Your task to perform on an android device: find which apps use the phone's location Image 0: 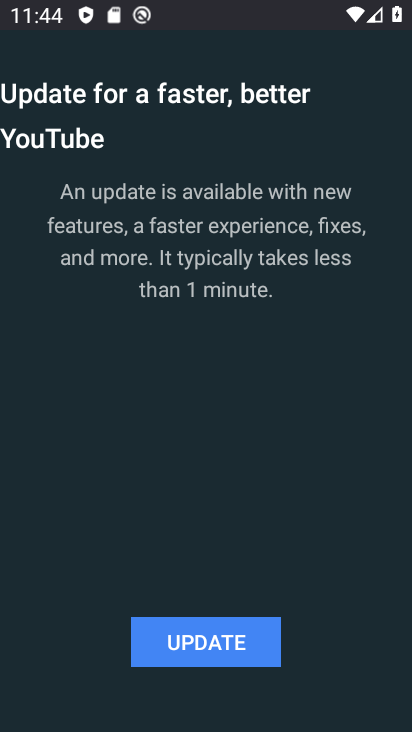
Step 0: press back button
Your task to perform on an android device: find which apps use the phone's location Image 1: 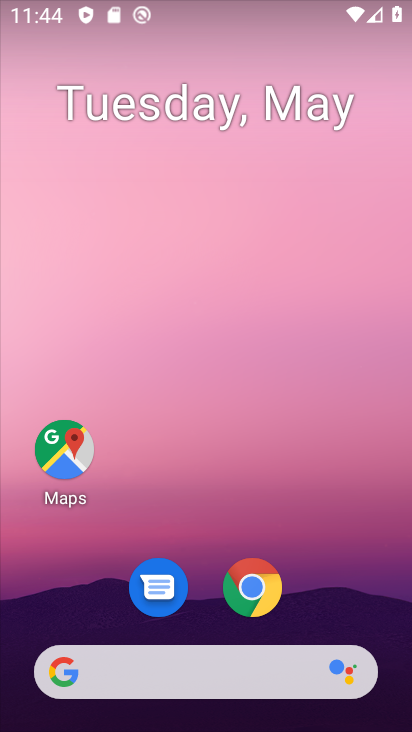
Step 1: drag from (315, 609) to (294, 14)
Your task to perform on an android device: find which apps use the phone's location Image 2: 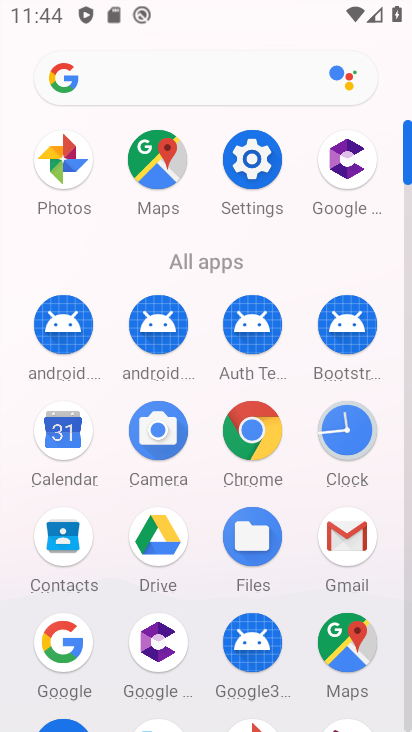
Step 2: click (253, 168)
Your task to perform on an android device: find which apps use the phone's location Image 3: 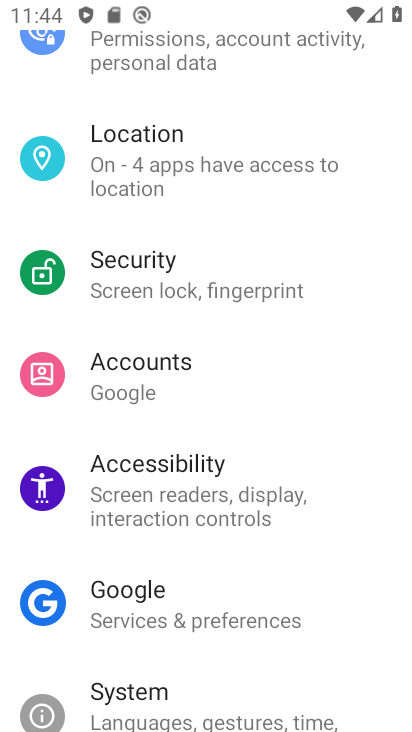
Step 3: drag from (187, 228) to (205, 564)
Your task to perform on an android device: find which apps use the phone's location Image 4: 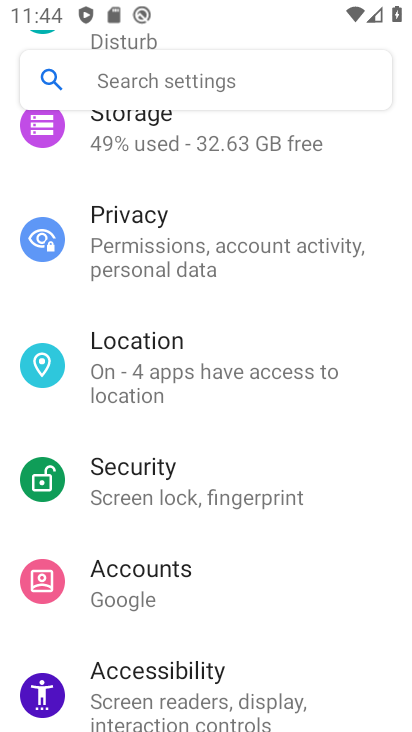
Step 4: click (160, 359)
Your task to perform on an android device: find which apps use the phone's location Image 5: 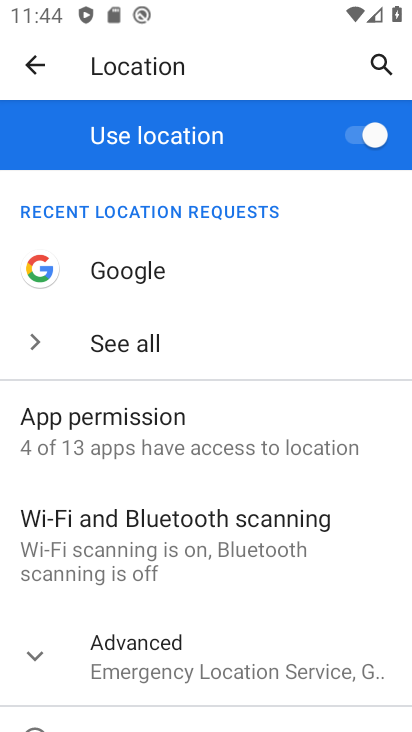
Step 5: click (129, 437)
Your task to perform on an android device: find which apps use the phone's location Image 6: 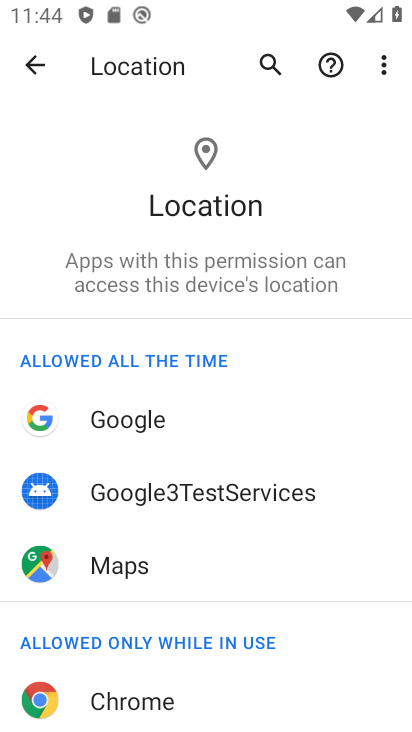
Step 6: task complete